Your task to perform on an android device: change the clock display to analog Image 0: 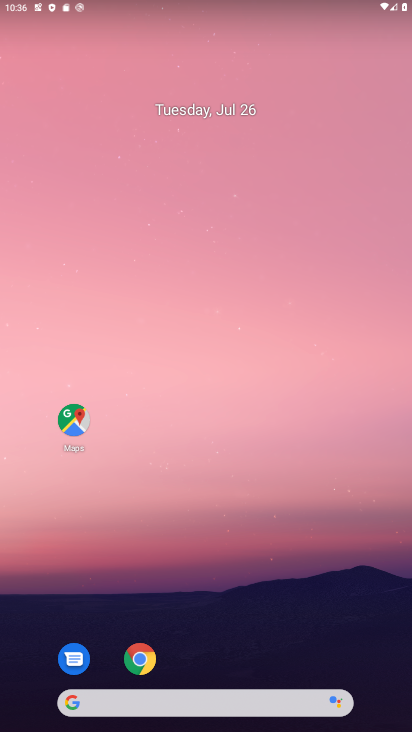
Step 0: drag from (179, 664) to (154, 65)
Your task to perform on an android device: change the clock display to analog Image 1: 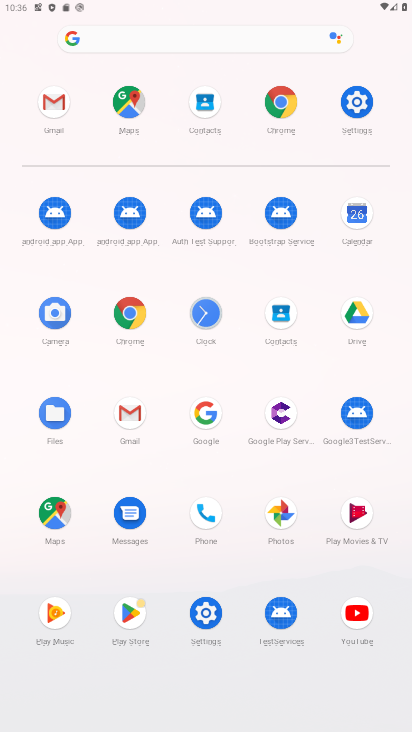
Step 1: click (203, 327)
Your task to perform on an android device: change the clock display to analog Image 2: 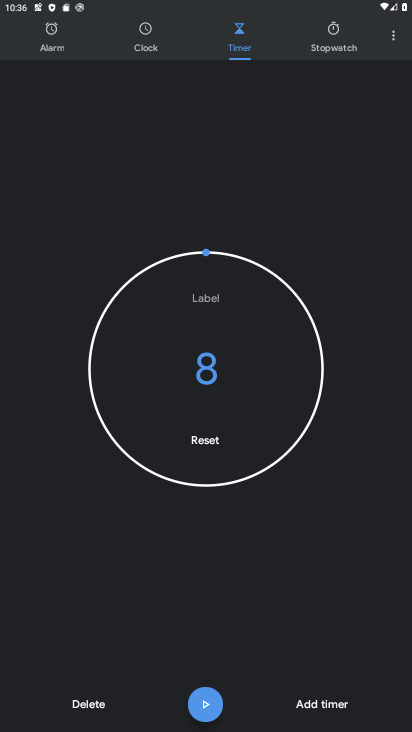
Step 2: click (396, 33)
Your task to perform on an android device: change the clock display to analog Image 3: 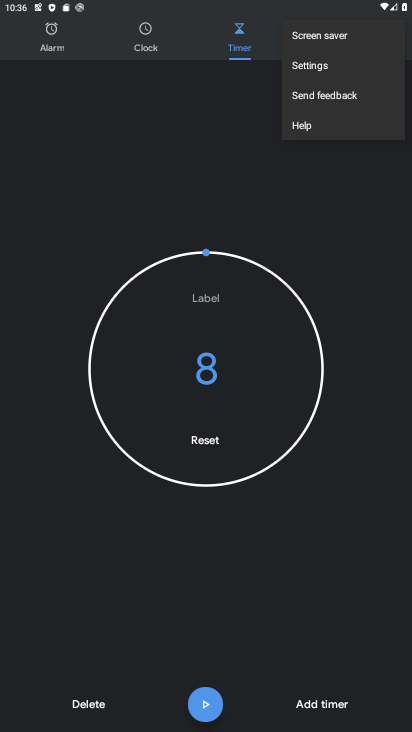
Step 3: click (331, 67)
Your task to perform on an android device: change the clock display to analog Image 4: 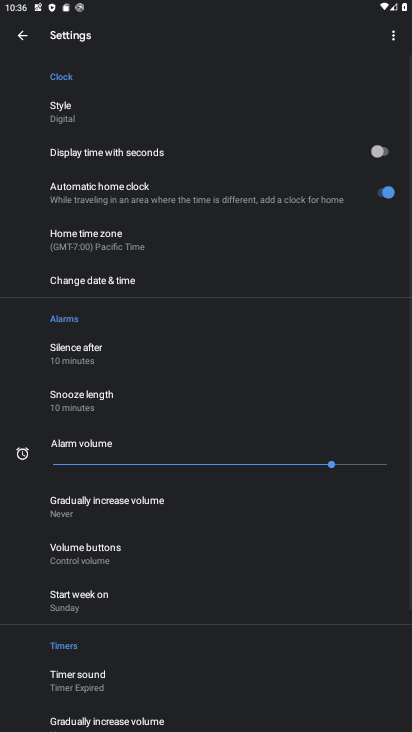
Step 4: click (49, 109)
Your task to perform on an android device: change the clock display to analog Image 5: 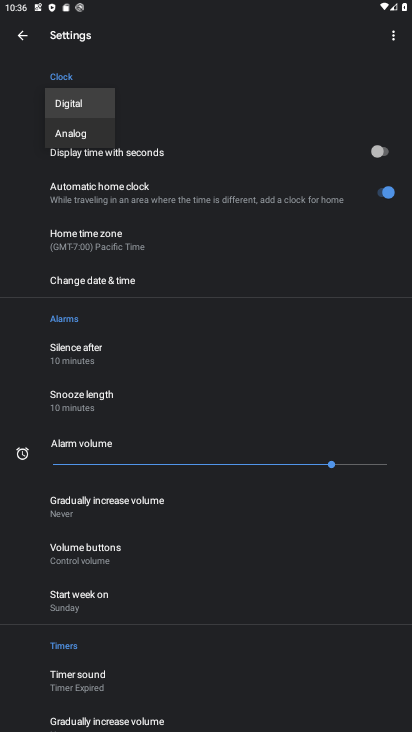
Step 5: click (99, 136)
Your task to perform on an android device: change the clock display to analog Image 6: 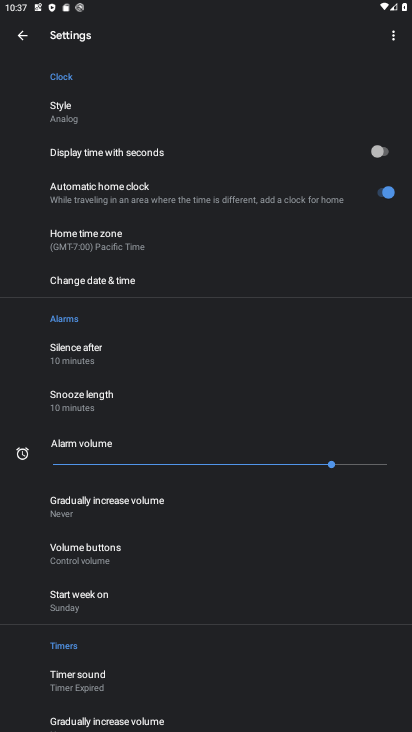
Step 6: task complete